Your task to perform on an android device: turn off location Image 0: 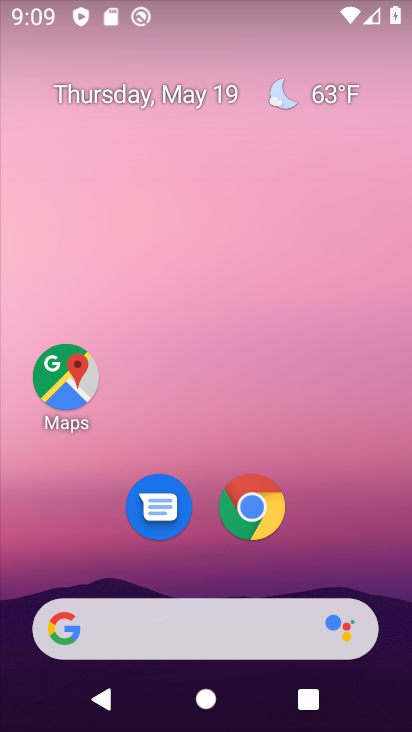
Step 0: drag from (387, 569) to (284, 128)
Your task to perform on an android device: turn off location Image 1: 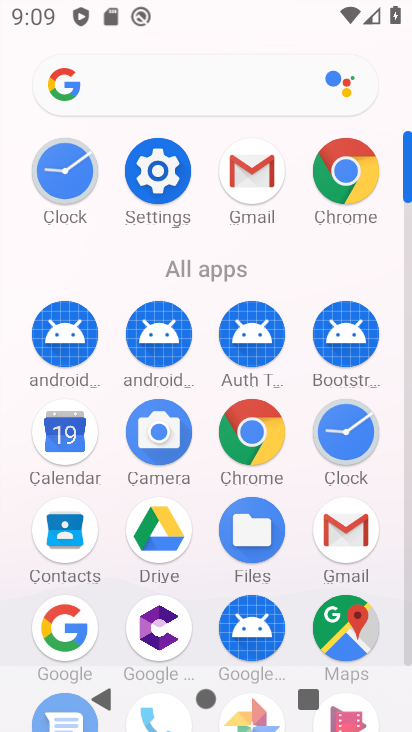
Step 1: click (159, 176)
Your task to perform on an android device: turn off location Image 2: 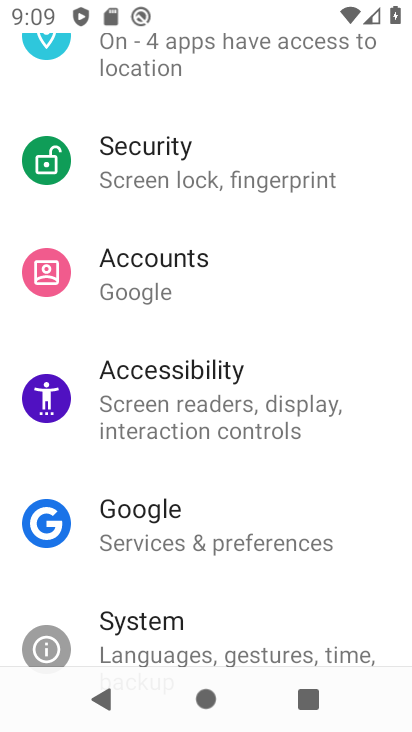
Step 2: drag from (212, 193) to (197, 459)
Your task to perform on an android device: turn off location Image 3: 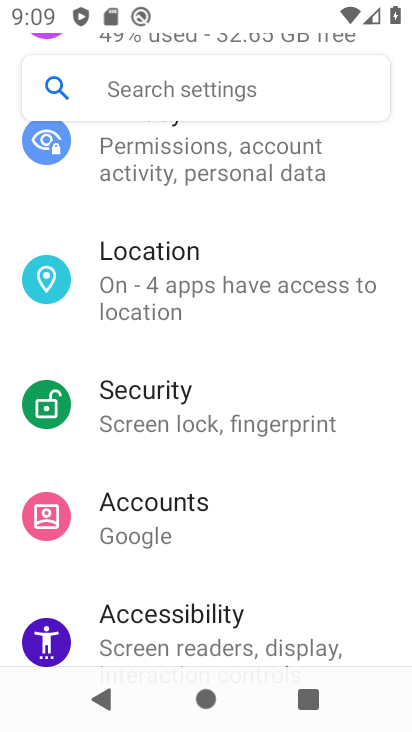
Step 3: click (184, 312)
Your task to perform on an android device: turn off location Image 4: 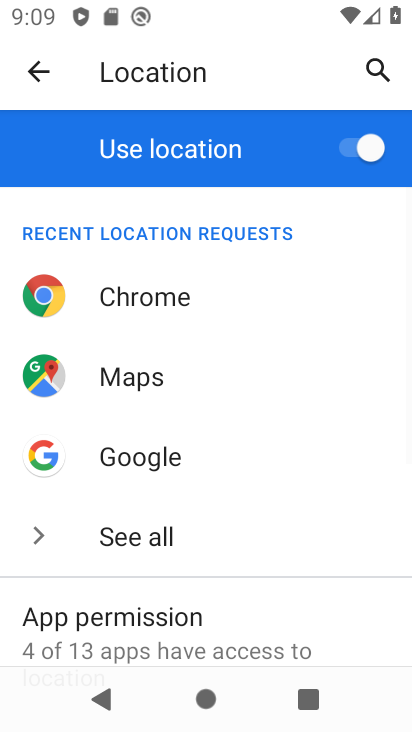
Step 4: click (361, 153)
Your task to perform on an android device: turn off location Image 5: 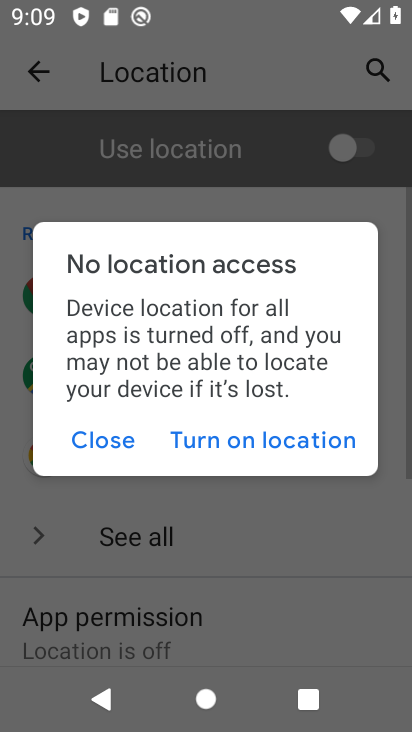
Step 5: task complete